Your task to perform on an android device: open wifi settings Image 0: 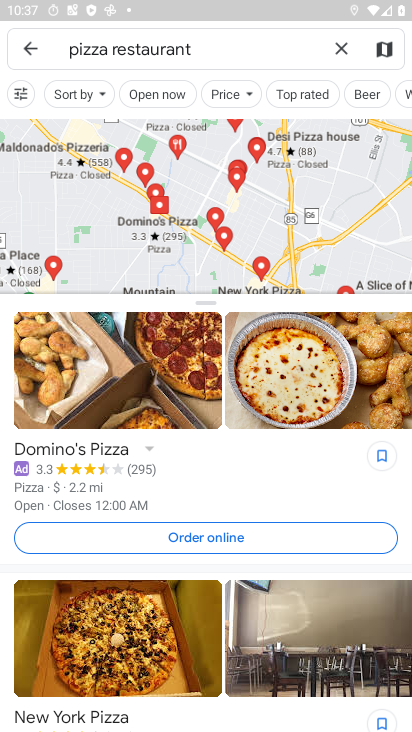
Step 0: press home button
Your task to perform on an android device: open wifi settings Image 1: 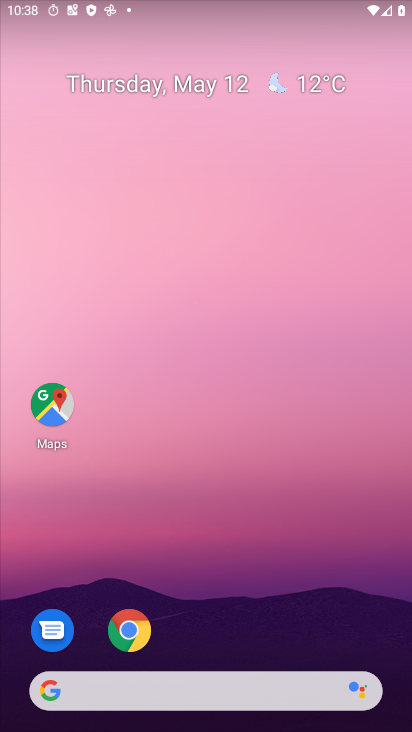
Step 1: drag from (164, 682) to (169, 108)
Your task to perform on an android device: open wifi settings Image 2: 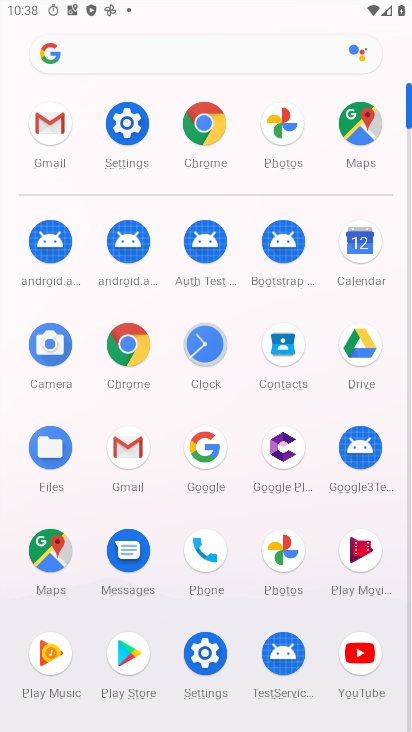
Step 2: click (111, 135)
Your task to perform on an android device: open wifi settings Image 3: 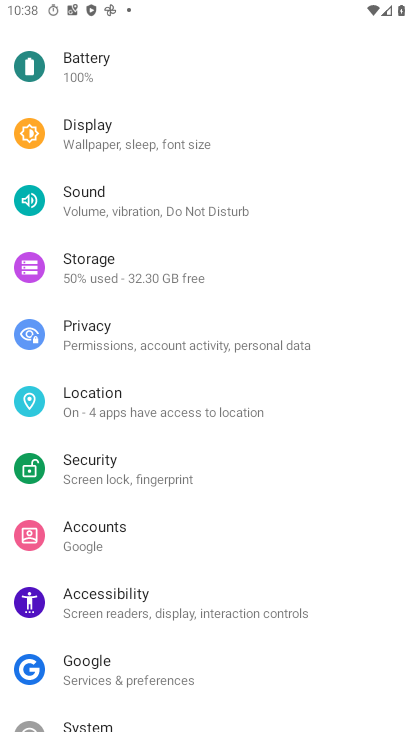
Step 3: drag from (169, 83) to (188, 450)
Your task to perform on an android device: open wifi settings Image 4: 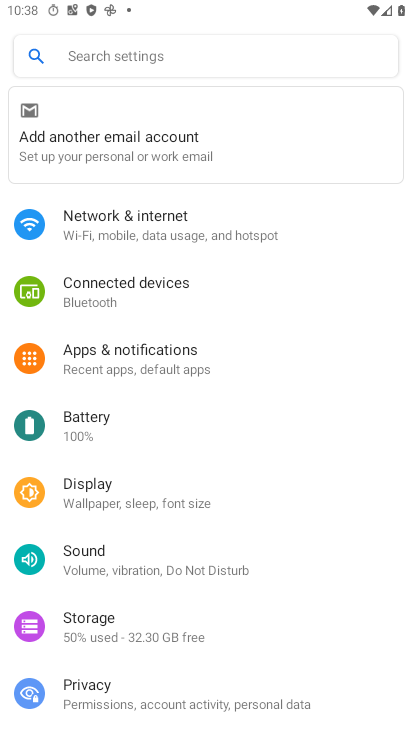
Step 4: click (108, 221)
Your task to perform on an android device: open wifi settings Image 5: 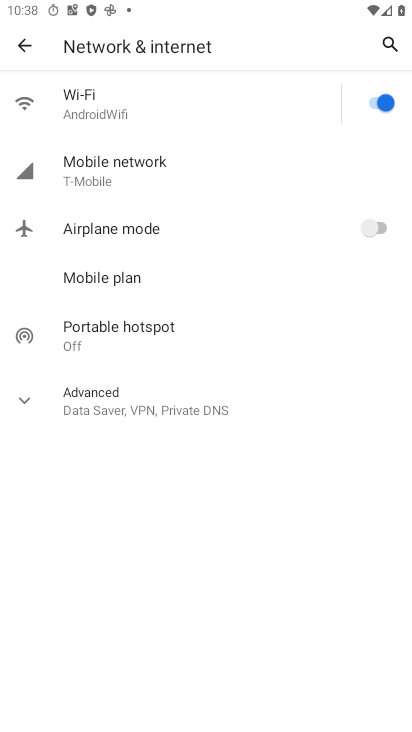
Step 5: click (108, 111)
Your task to perform on an android device: open wifi settings Image 6: 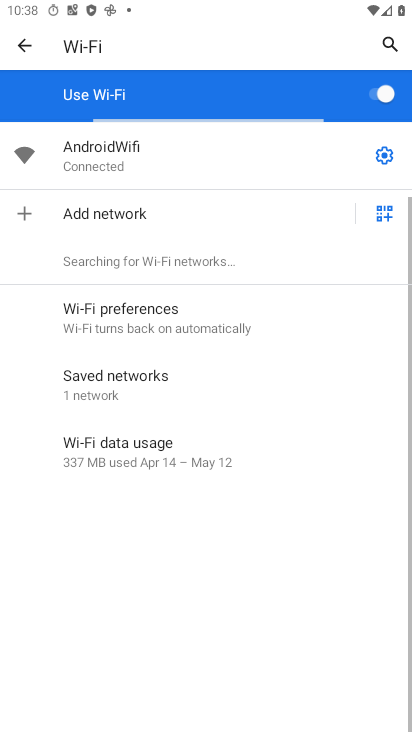
Step 6: task complete